Your task to perform on an android device: open sync settings in chrome Image 0: 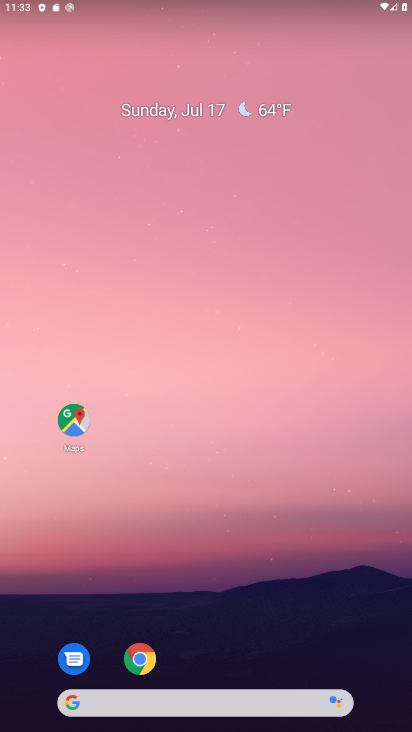
Step 0: click (138, 662)
Your task to perform on an android device: open sync settings in chrome Image 1: 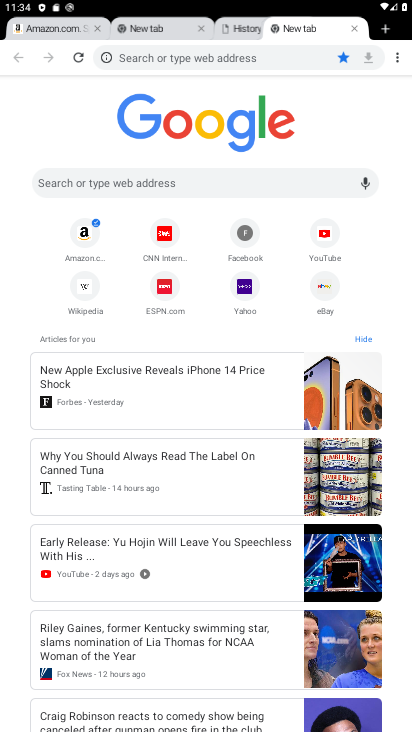
Step 1: click (395, 58)
Your task to perform on an android device: open sync settings in chrome Image 2: 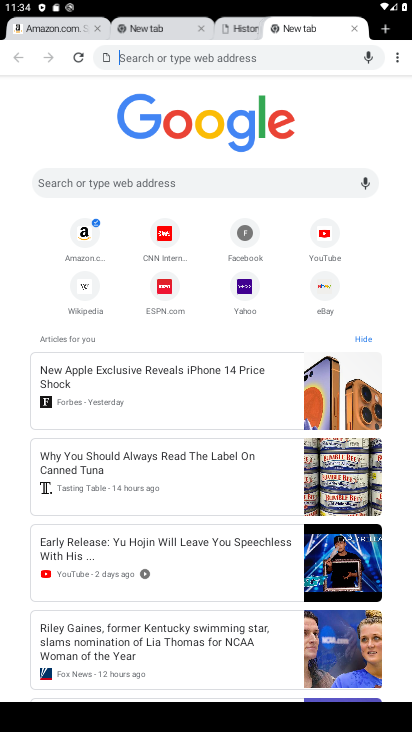
Step 2: click (397, 52)
Your task to perform on an android device: open sync settings in chrome Image 3: 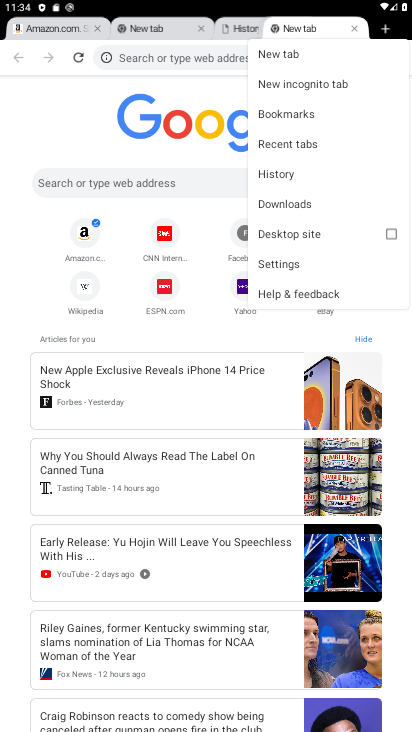
Step 3: click (301, 260)
Your task to perform on an android device: open sync settings in chrome Image 4: 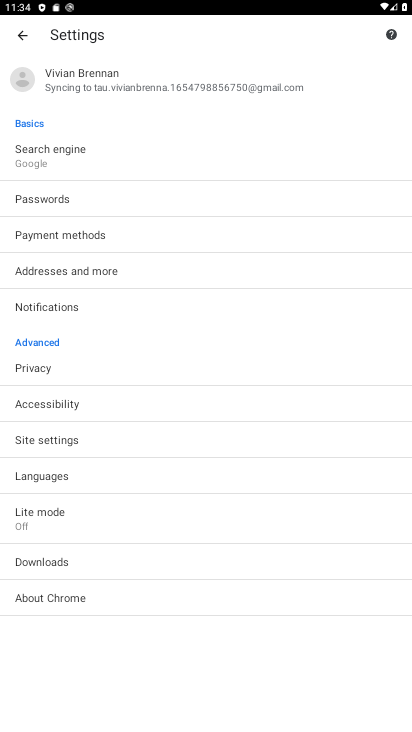
Step 4: task complete